Your task to perform on an android device: Show me recent news Image 0: 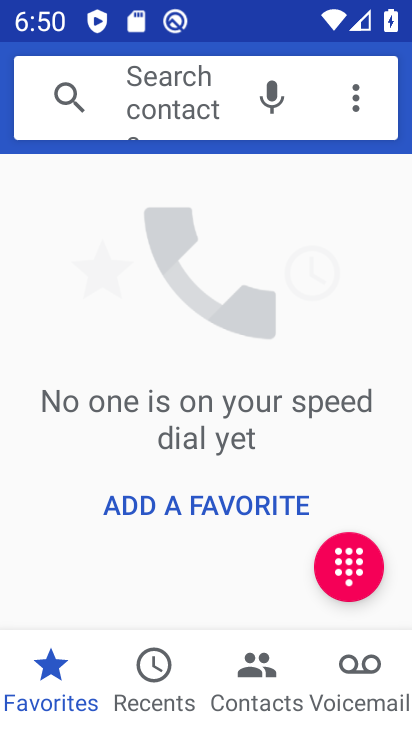
Step 0: press home button
Your task to perform on an android device: Show me recent news Image 1: 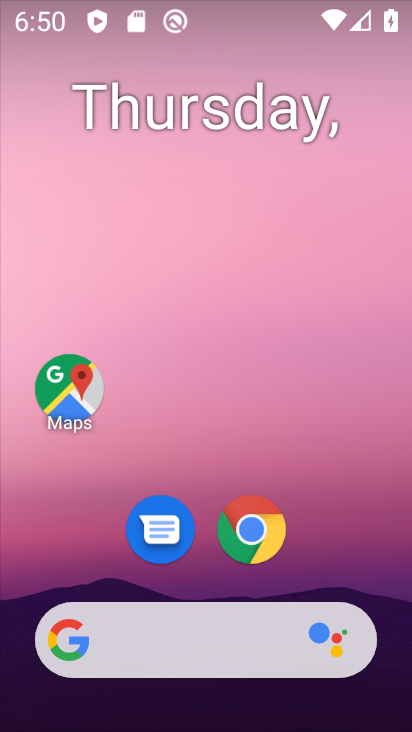
Step 1: drag from (175, 595) to (179, 165)
Your task to perform on an android device: Show me recent news Image 2: 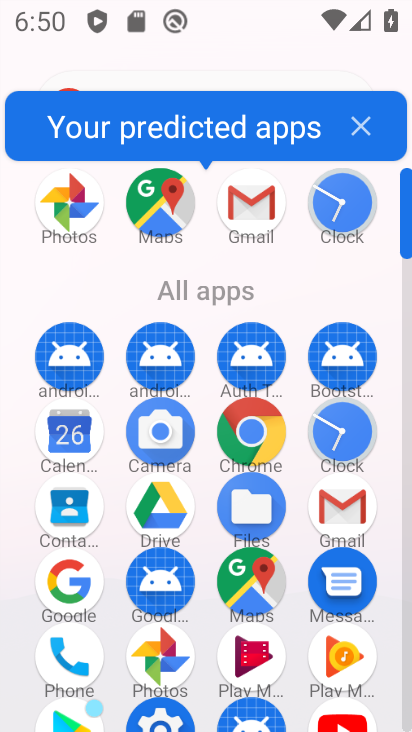
Step 2: click (61, 587)
Your task to perform on an android device: Show me recent news Image 3: 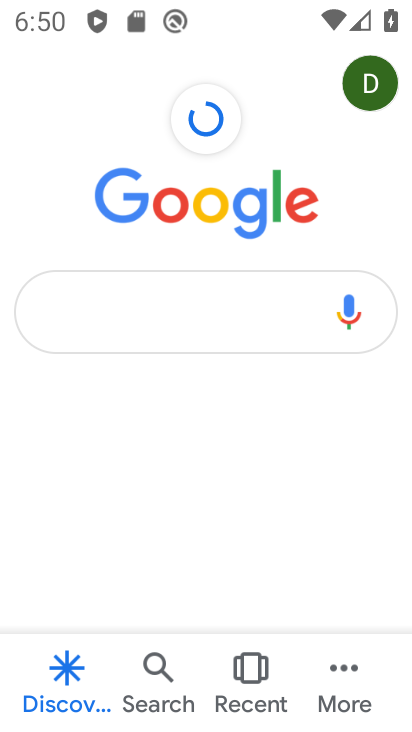
Step 3: click (181, 320)
Your task to perform on an android device: Show me recent news Image 4: 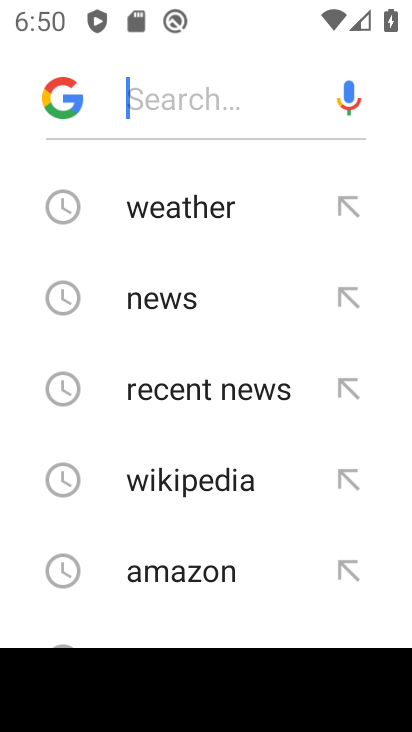
Step 4: click (188, 380)
Your task to perform on an android device: Show me recent news Image 5: 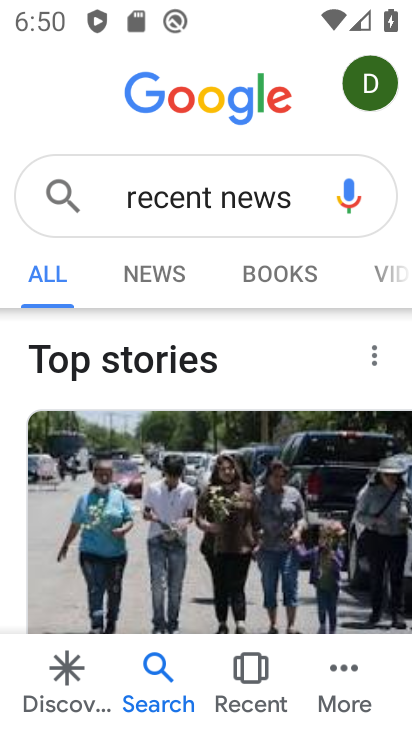
Step 5: task complete